Your task to perform on an android device: Go to display settings Image 0: 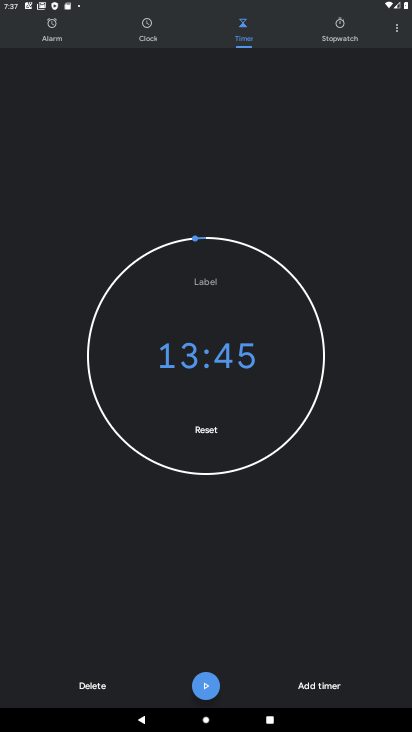
Step 0: press home button
Your task to perform on an android device: Go to display settings Image 1: 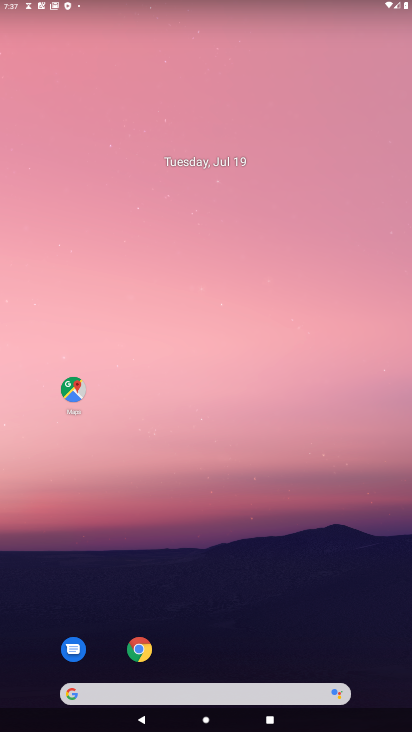
Step 1: drag from (165, 687) to (251, 124)
Your task to perform on an android device: Go to display settings Image 2: 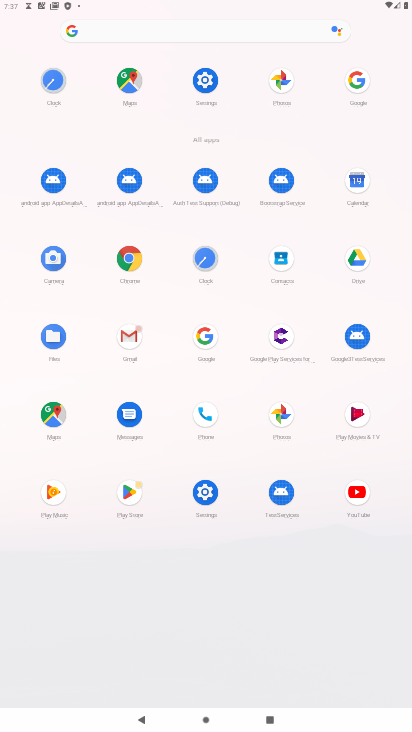
Step 2: click (203, 73)
Your task to perform on an android device: Go to display settings Image 3: 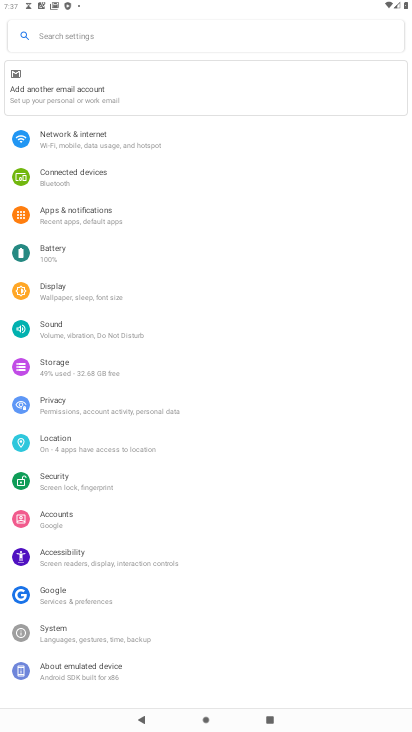
Step 3: click (63, 291)
Your task to perform on an android device: Go to display settings Image 4: 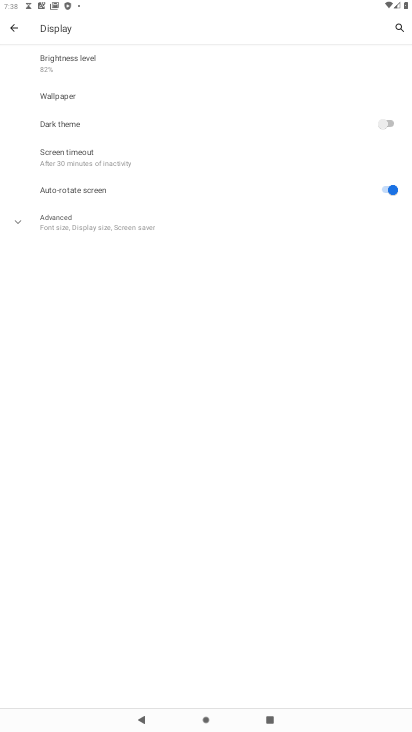
Step 4: task complete